Your task to perform on an android device: Show me popular games on the Play Store Image 0: 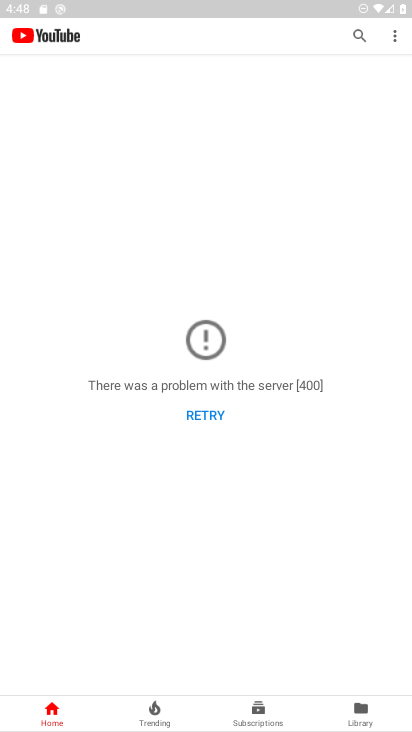
Step 0: press home button
Your task to perform on an android device: Show me popular games on the Play Store Image 1: 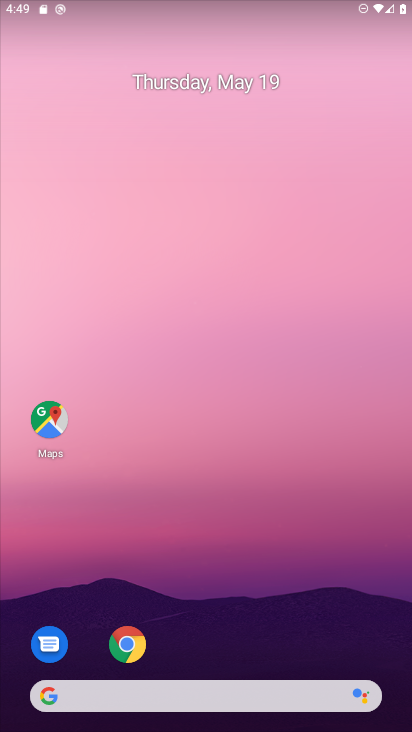
Step 1: drag from (291, 542) to (273, 126)
Your task to perform on an android device: Show me popular games on the Play Store Image 2: 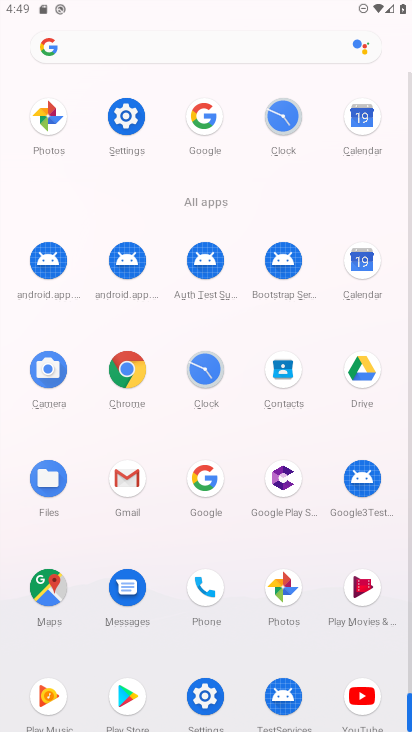
Step 2: click (119, 693)
Your task to perform on an android device: Show me popular games on the Play Store Image 3: 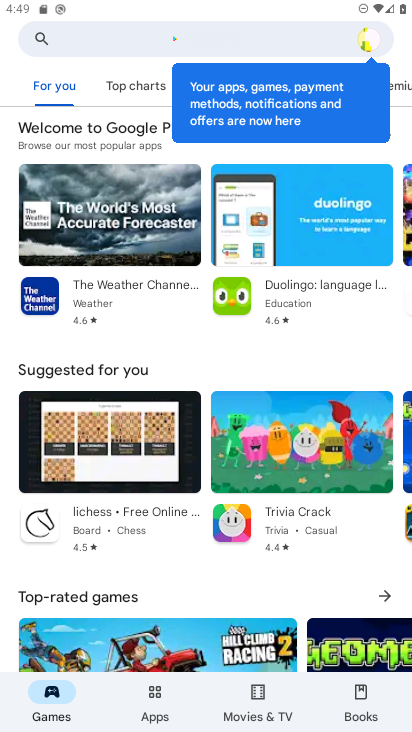
Step 3: click (113, 45)
Your task to perform on an android device: Show me popular games on the Play Store Image 4: 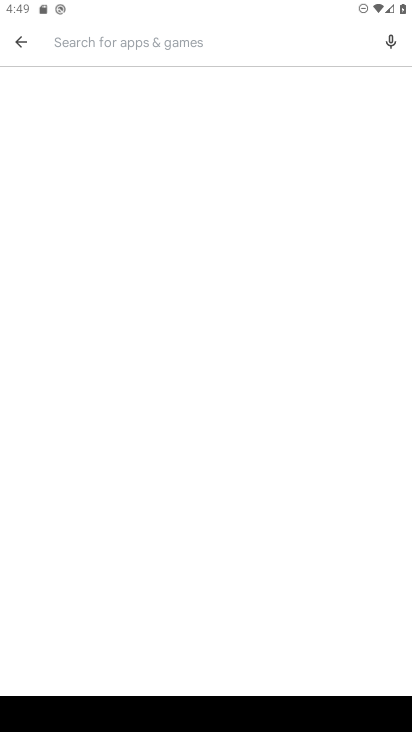
Step 4: type "popular games "
Your task to perform on an android device: Show me popular games on the Play Store Image 5: 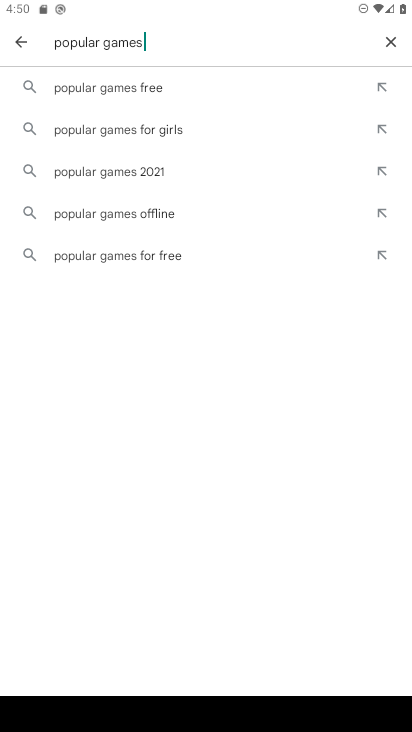
Step 5: click (180, 254)
Your task to perform on an android device: Show me popular games on the Play Store Image 6: 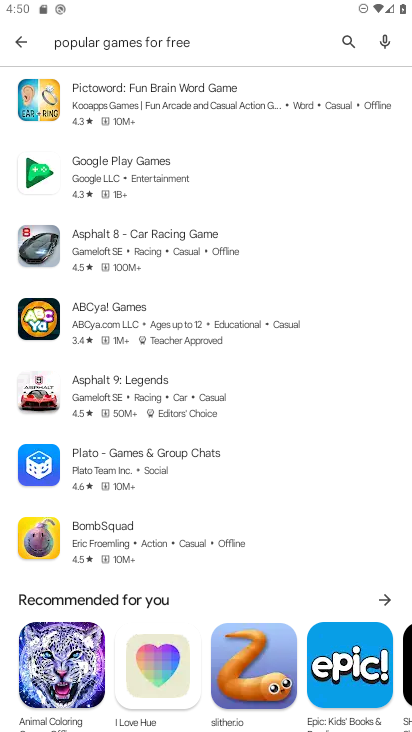
Step 6: task complete